Your task to perform on an android device: Open calendar and show me the first week of next month Image 0: 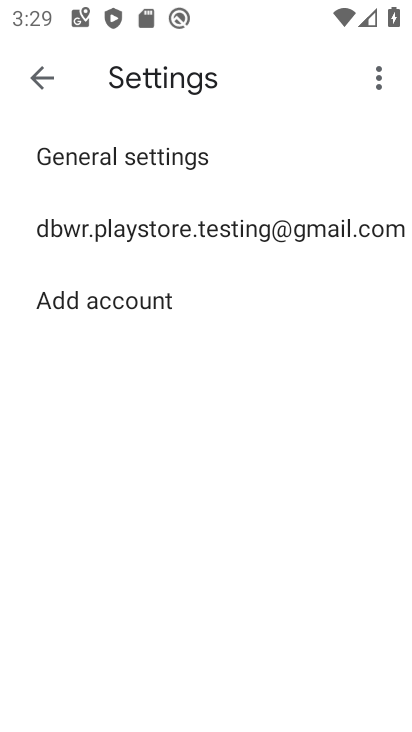
Step 0: press home button
Your task to perform on an android device: Open calendar and show me the first week of next month Image 1: 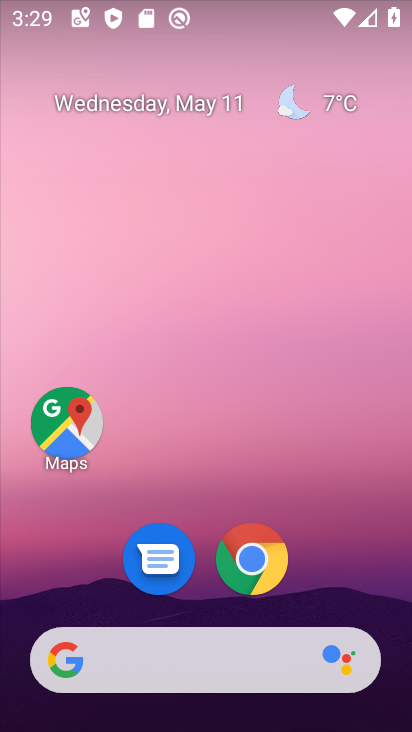
Step 1: drag from (196, 634) to (191, 116)
Your task to perform on an android device: Open calendar and show me the first week of next month Image 2: 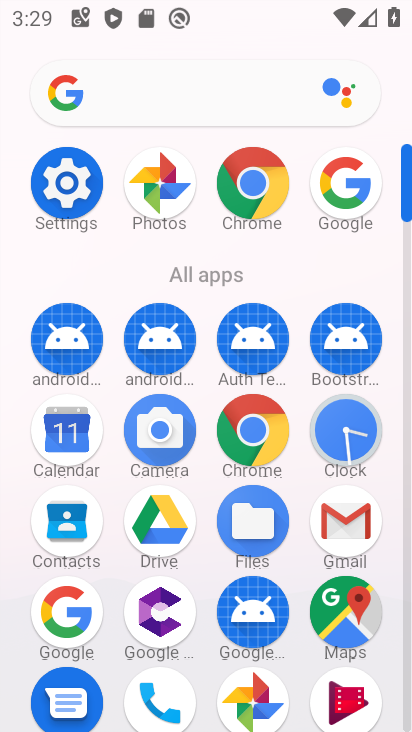
Step 2: click (73, 435)
Your task to perform on an android device: Open calendar and show me the first week of next month Image 3: 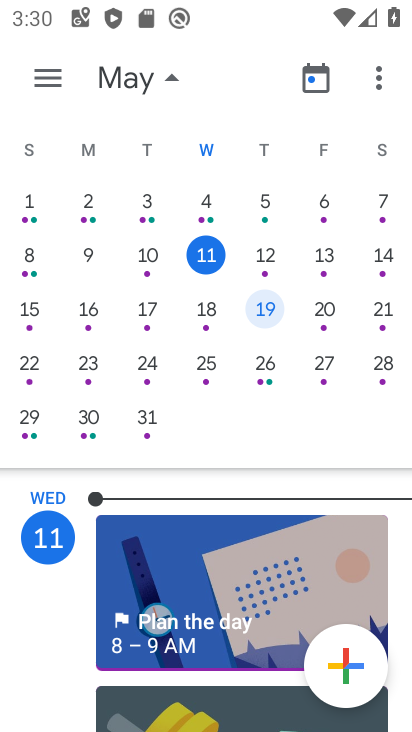
Step 3: task complete